Your task to perform on an android device: open chrome and create a bookmark for the current page Image 0: 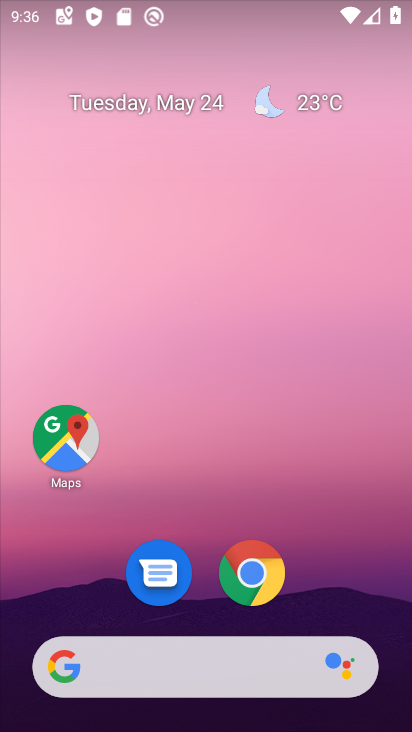
Step 0: click (260, 575)
Your task to perform on an android device: open chrome and create a bookmark for the current page Image 1: 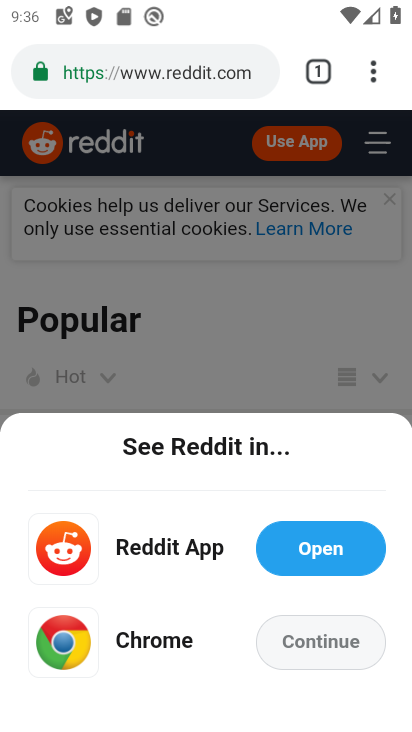
Step 1: click (369, 81)
Your task to perform on an android device: open chrome and create a bookmark for the current page Image 2: 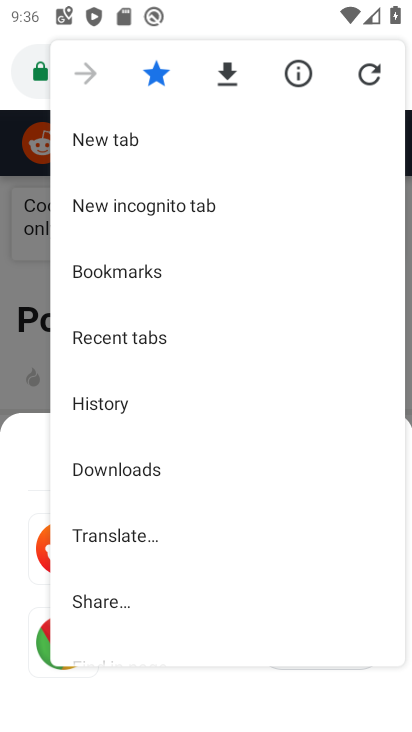
Step 2: task complete